Your task to perform on an android device: Open battery settings Image 0: 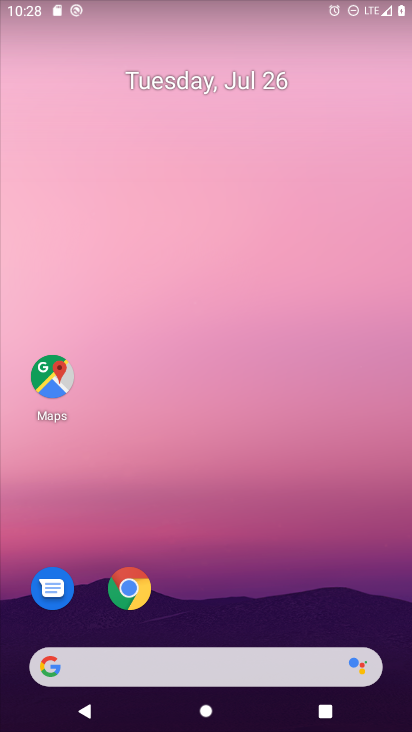
Step 0: drag from (188, 642) to (219, 173)
Your task to perform on an android device: Open battery settings Image 1: 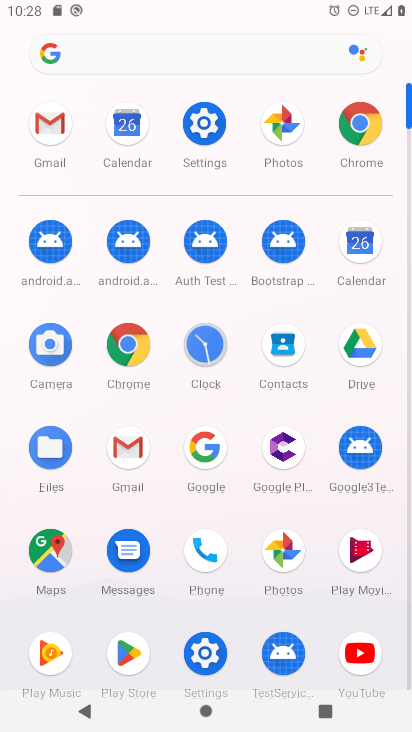
Step 1: click (213, 165)
Your task to perform on an android device: Open battery settings Image 2: 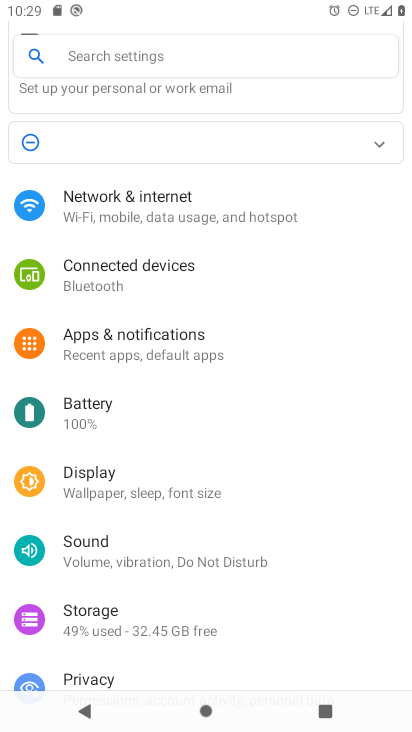
Step 2: click (147, 425)
Your task to perform on an android device: Open battery settings Image 3: 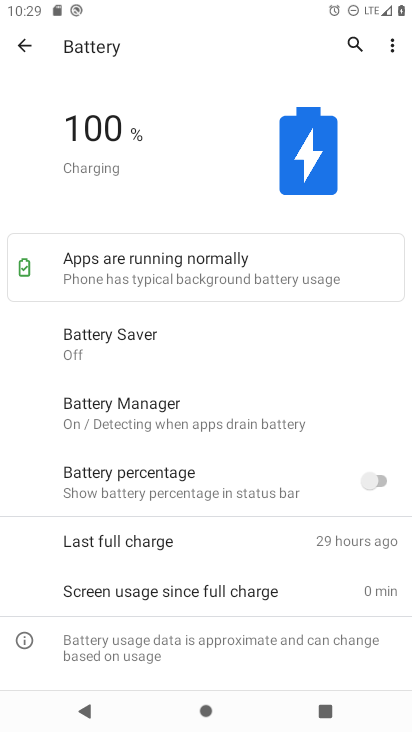
Step 3: task complete